Your task to perform on an android device: Open Youtube and go to "Your channel" Image 0: 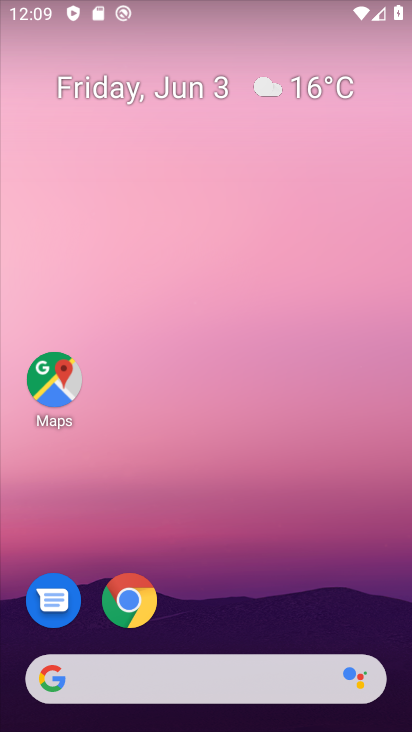
Step 0: drag from (305, 478) to (283, 81)
Your task to perform on an android device: Open Youtube and go to "Your channel" Image 1: 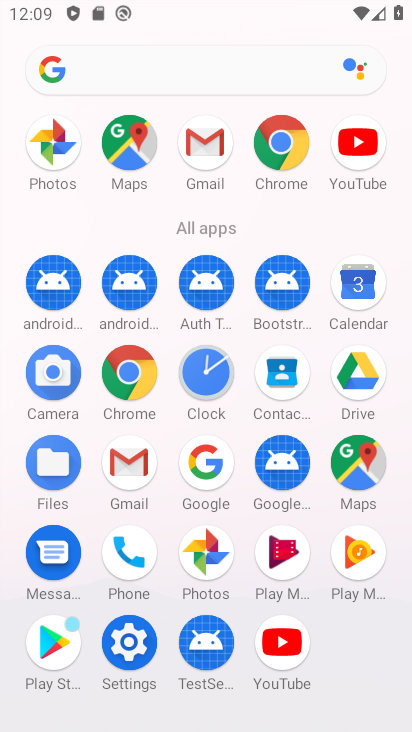
Step 1: click (298, 654)
Your task to perform on an android device: Open Youtube and go to "Your channel" Image 2: 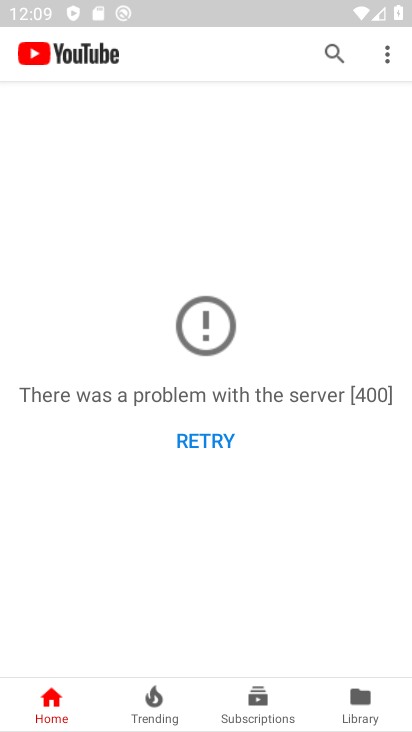
Step 2: click (227, 447)
Your task to perform on an android device: Open Youtube and go to "Your channel" Image 3: 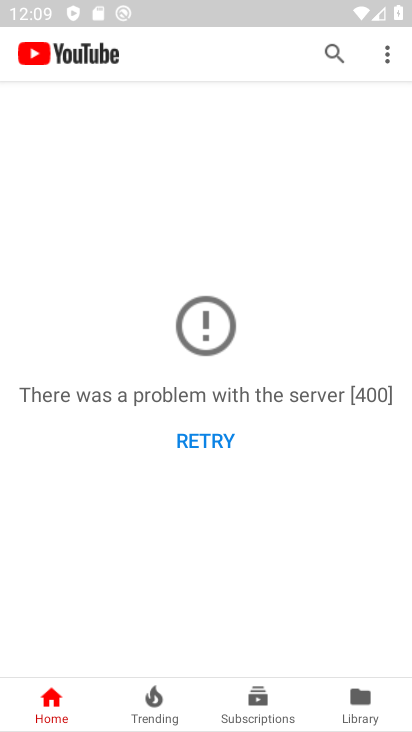
Step 3: click (227, 447)
Your task to perform on an android device: Open Youtube and go to "Your channel" Image 4: 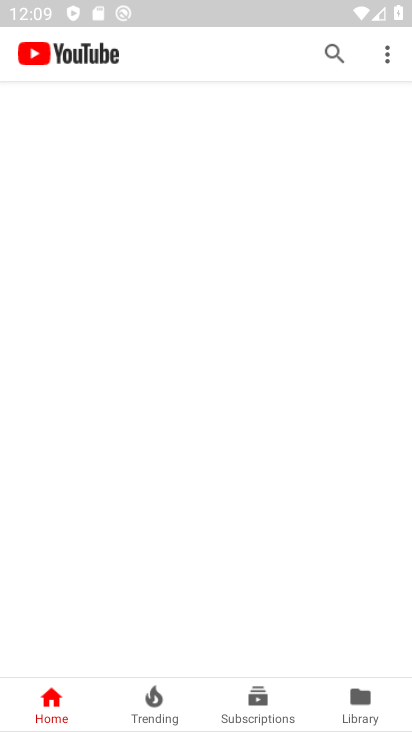
Step 4: click (227, 447)
Your task to perform on an android device: Open Youtube and go to "Your channel" Image 5: 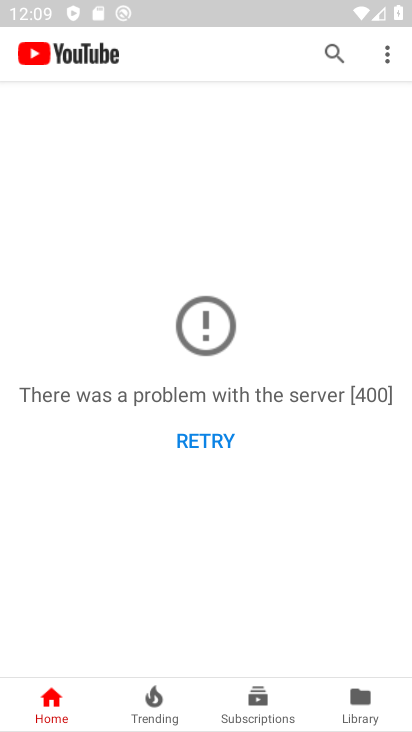
Step 5: task complete